Your task to perform on an android device: visit the assistant section in the google photos Image 0: 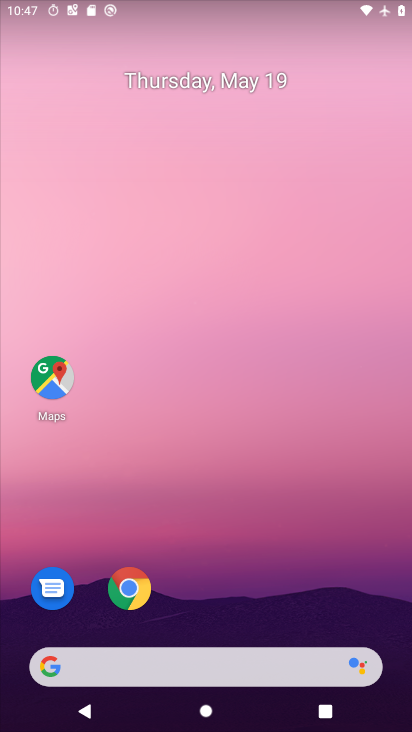
Step 0: drag from (187, 675) to (312, 263)
Your task to perform on an android device: visit the assistant section in the google photos Image 1: 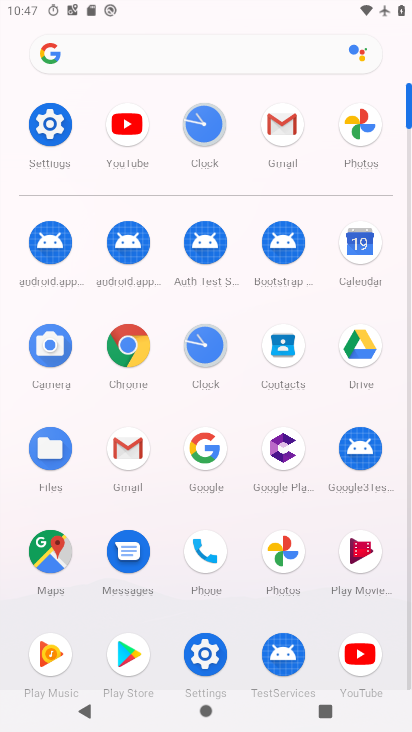
Step 1: click (290, 557)
Your task to perform on an android device: visit the assistant section in the google photos Image 2: 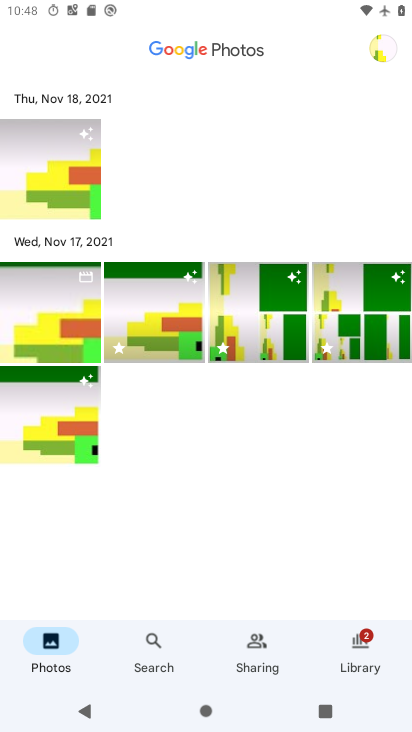
Step 2: click (138, 665)
Your task to perform on an android device: visit the assistant section in the google photos Image 3: 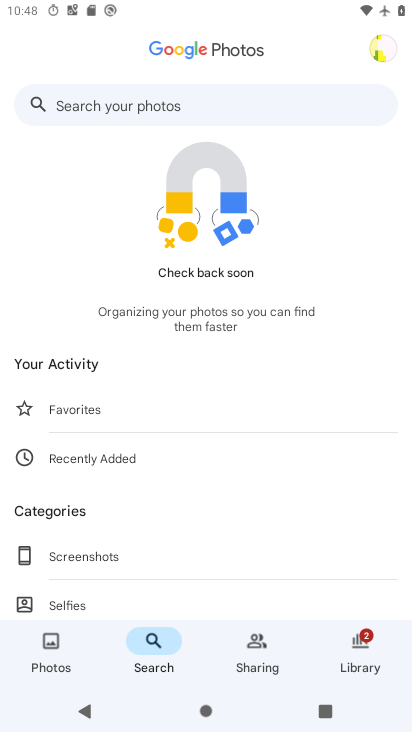
Step 3: task complete